Your task to perform on an android device: see sites visited before in the chrome app Image 0: 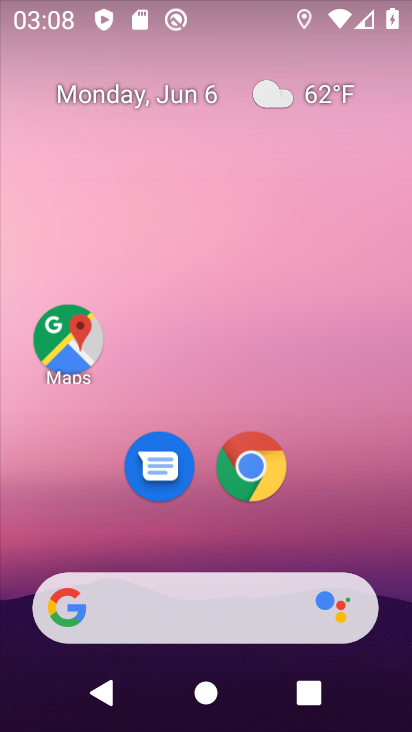
Step 0: drag from (336, 474) to (336, 105)
Your task to perform on an android device: see sites visited before in the chrome app Image 1: 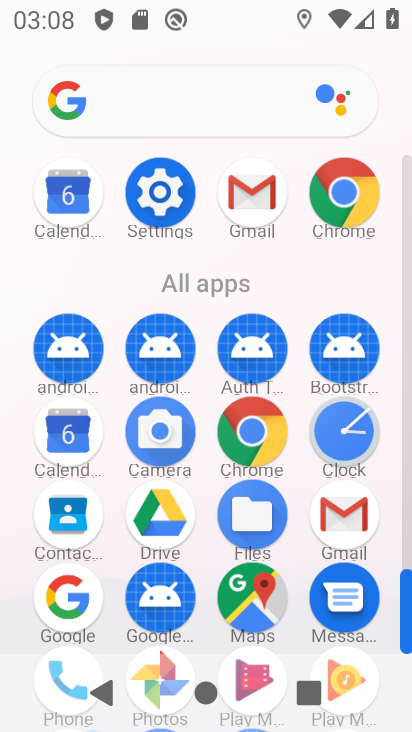
Step 1: click (355, 187)
Your task to perform on an android device: see sites visited before in the chrome app Image 2: 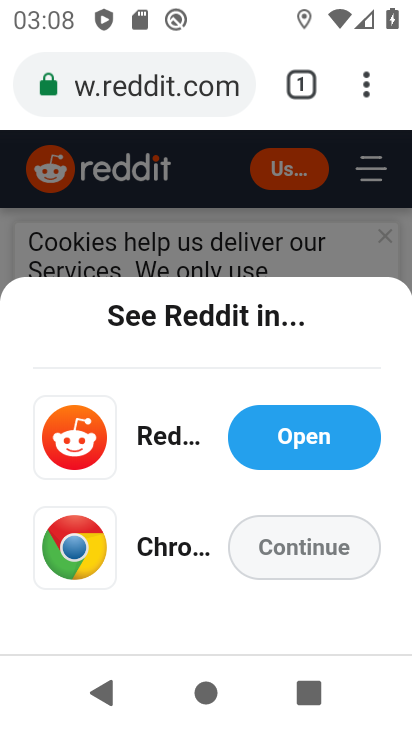
Step 2: task complete